Your task to perform on an android device: Go to Reddit.com Image 0: 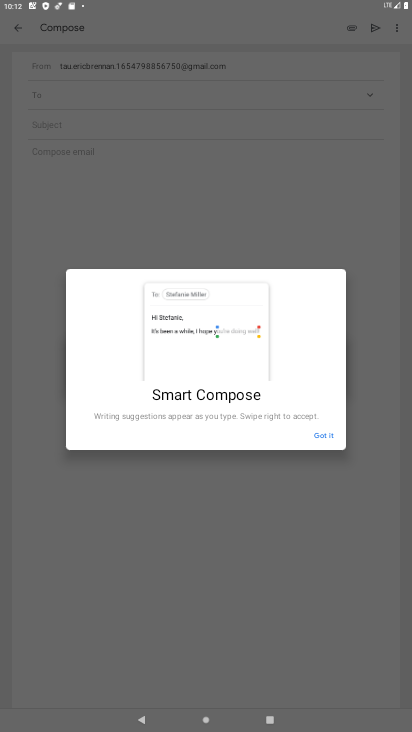
Step 0: press home button
Your task to perform on an android device: Go to Reddit.com Image 1: 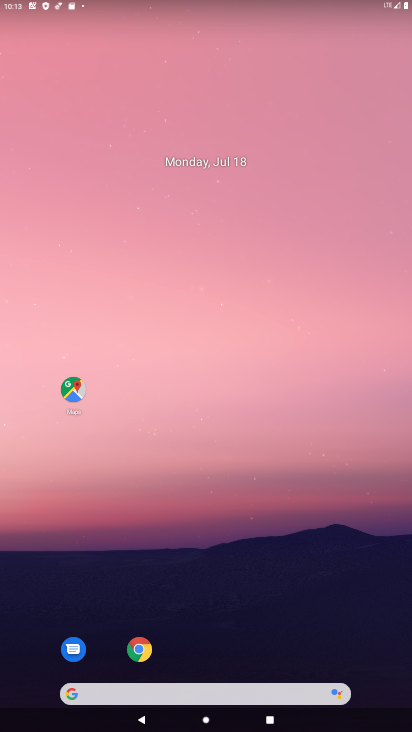
Step 1: click (208, 696)
Your task to perform on an android device: Go to Reddit.com Image 2: 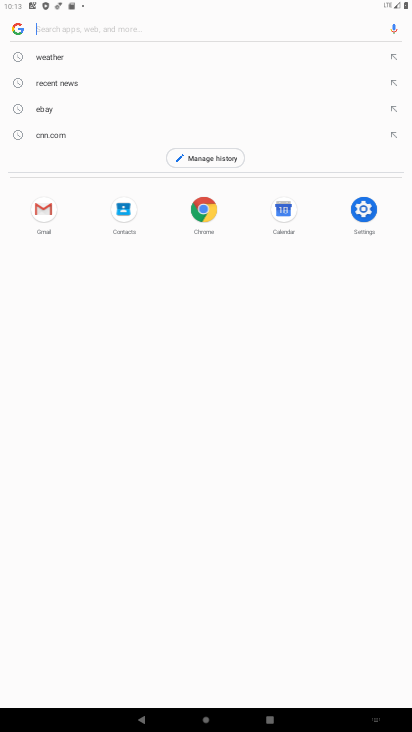
Step 2: type "reddit.com"
Your task to perform on an android device: Go to Reddit.com Image 3: 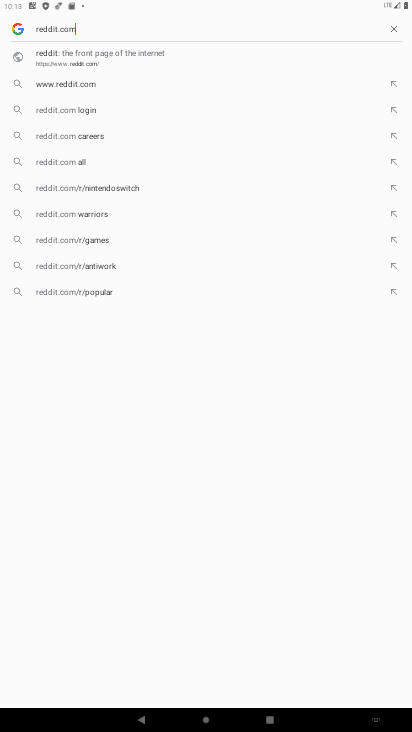
Step 3: click (124, 58)
Your task to perform on an android device: Go to Reddit.com Image 4: 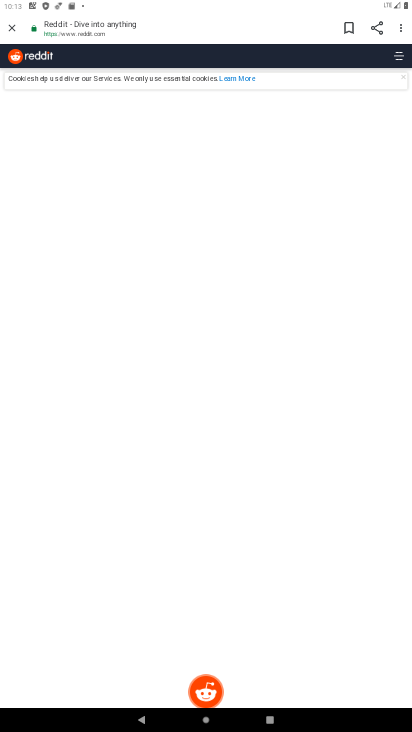
Step 4: task complete